Your task to perform on an android device: Open Amazon Image 0: 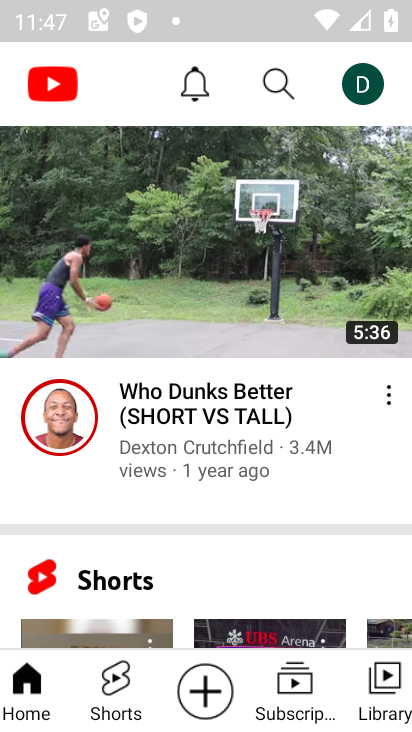
Step 0: press home button
Your task to perform on an android device: Open Amazon Image 1: 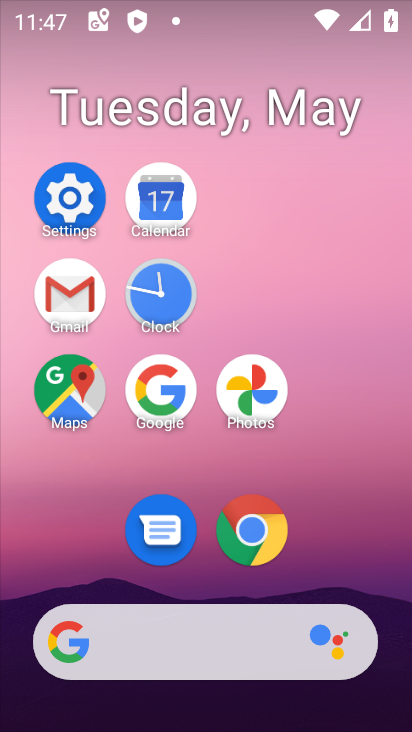
Step 1: click (264, 540)
Your task to perform on an android device: Open Amazon Image 2: 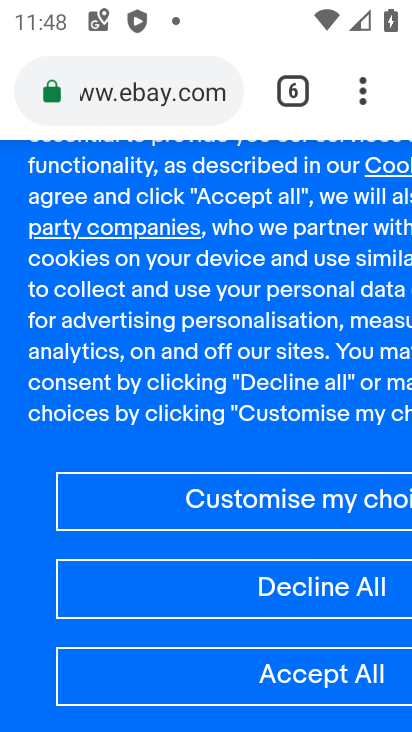
Step 2: click (286, 103)
Your task to perform on an android device: Open Amazon Image 3: 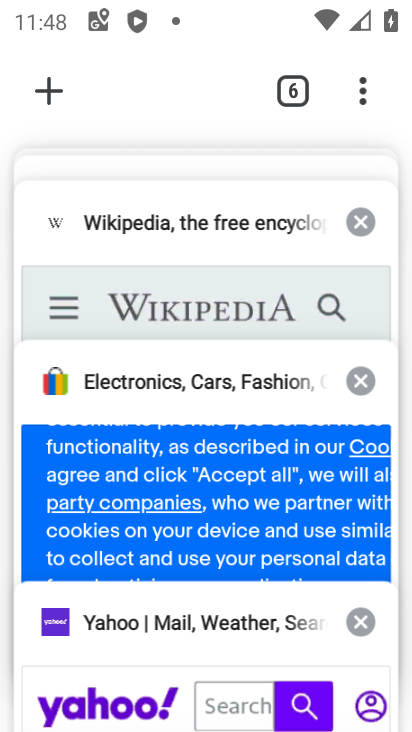
Step 3: drag from (177, 204) to (178, 518)
Your task to perform on an android device: Open Amazon Image 4: 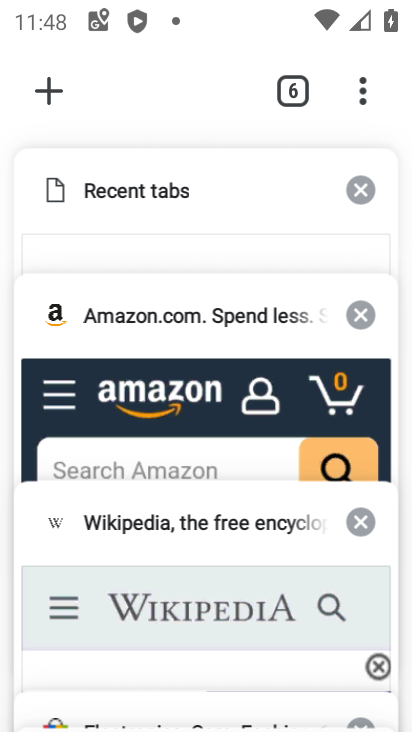
Step 4: click (177, 328)
Your task to perform on an android device: Open Amazon Image 5: 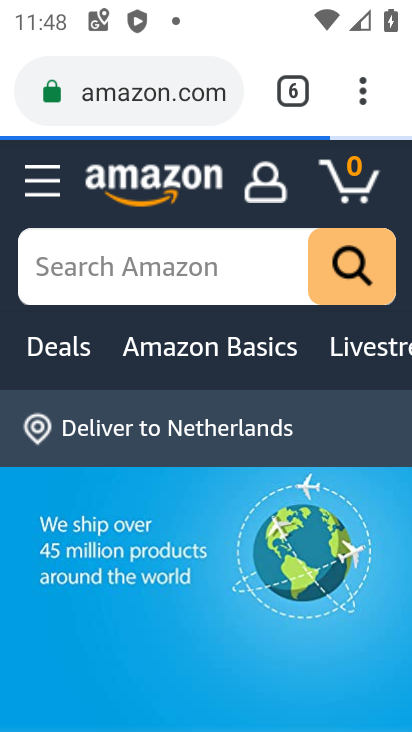
Step 5: task complete